Your task to perform on an android device: turn off wifi Image 0: 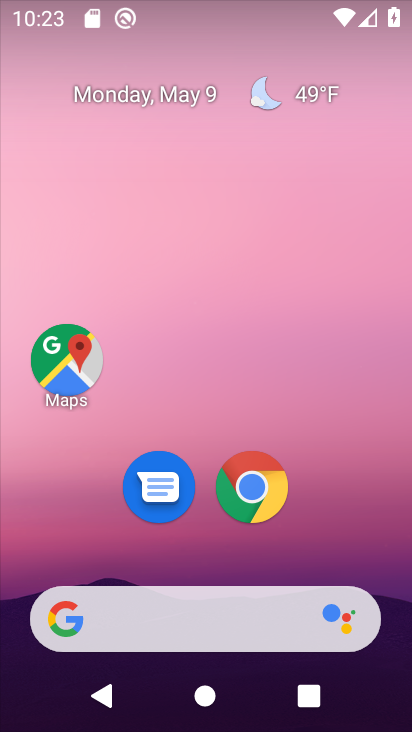
Step 0: drag from (336, 504) to (117, 89)
Your task to perform on an android device: turn off wifi Image 1: 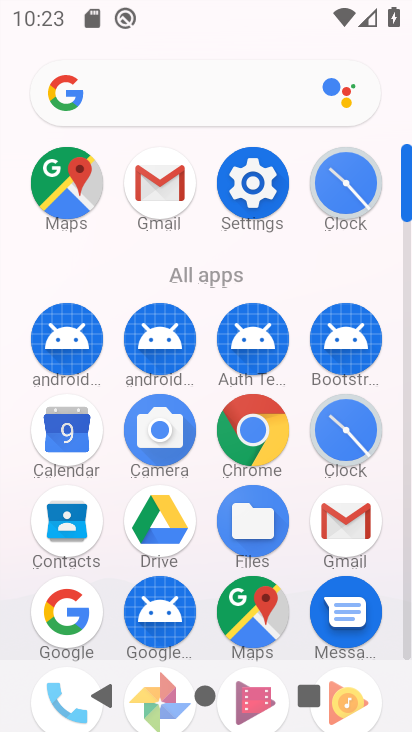
Step 1: click (255, 192)
Your task to perform on an android device: turn off wifi Image 2: 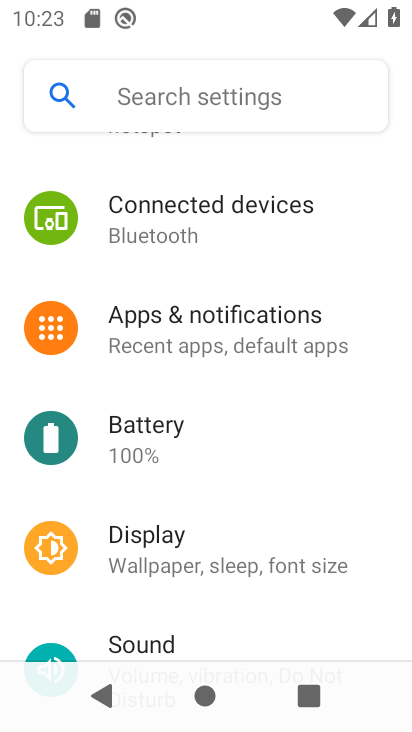
Step 2: drag from (294, 176) to (267, 519)
Your task to perform on an android device: turn off wifi Image 3: 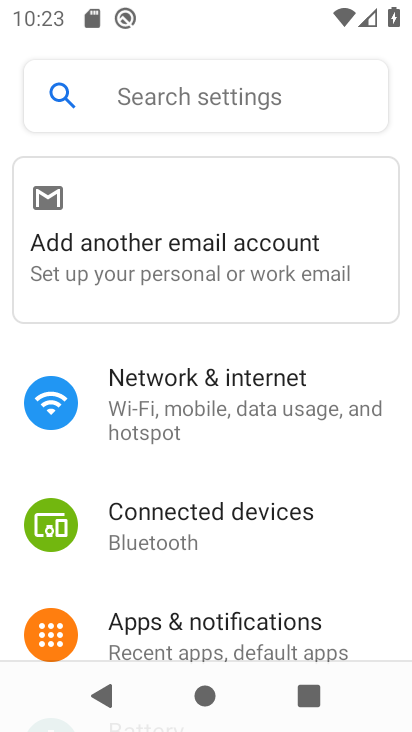
Step 3: click (165, 404)
Your task to perform on an android device: turn off wifi Image 4: 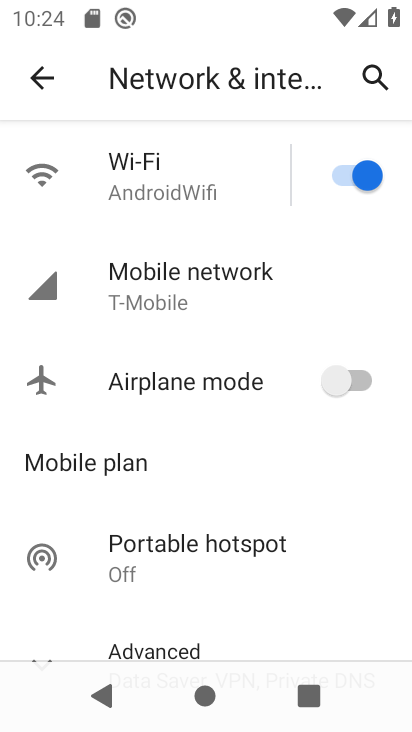
Step 4: click (338, 170)
Your task to perform on an android device: turn off wifi Image 5: 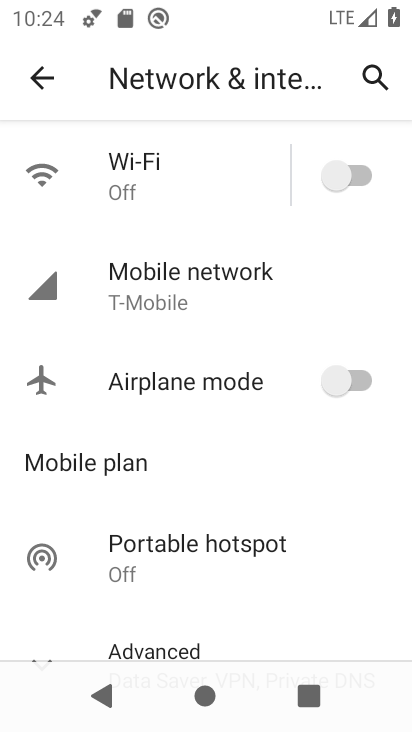
Step 5: task complete